Your task to perform on an android device: change your default location settings in chrome Image 0: 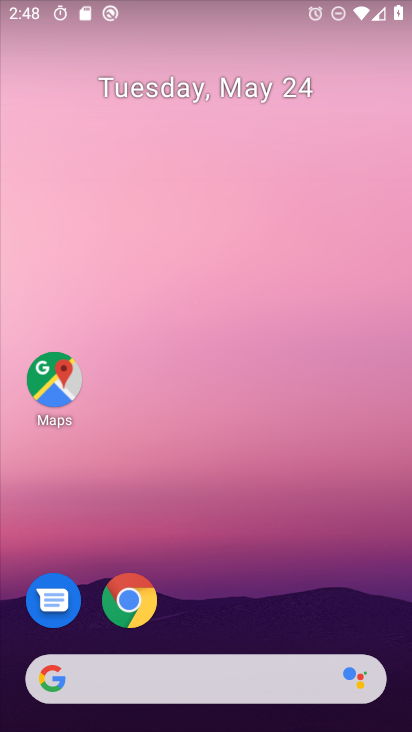
Step 0: click (129, 601)
Your task to perform on an android device: change your default location settings in chrome Image 1: 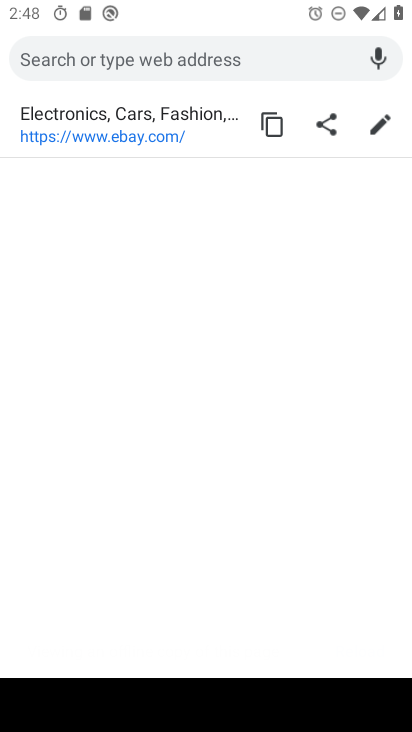
Step 1: press back button
Your task to perform on an android device: change your default location settings in chrome Image 2: 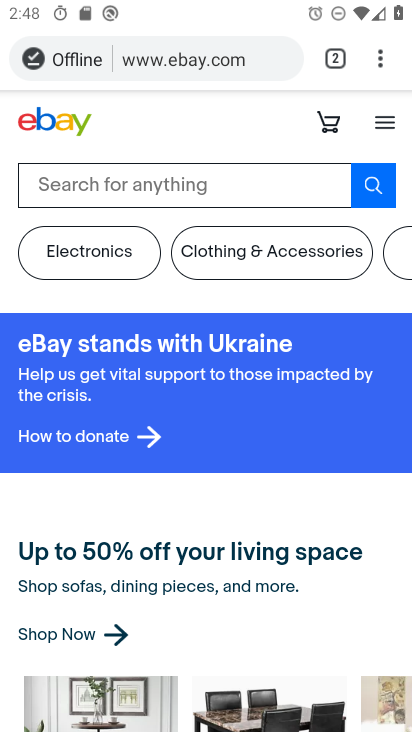
Step 2: click (386, 49)
Your task to perform on an android device: change your default location settings in chrome Image 3: 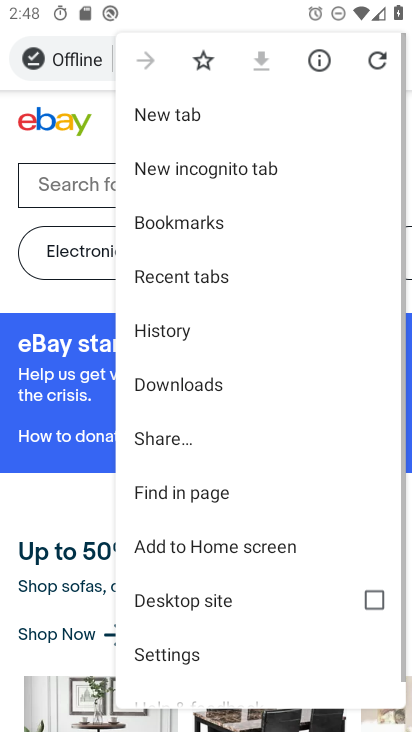
Step 3: drag from (248, 603) to (284, 177)
Your task to perform on an android device: change your default location settings in chrome Image 4: 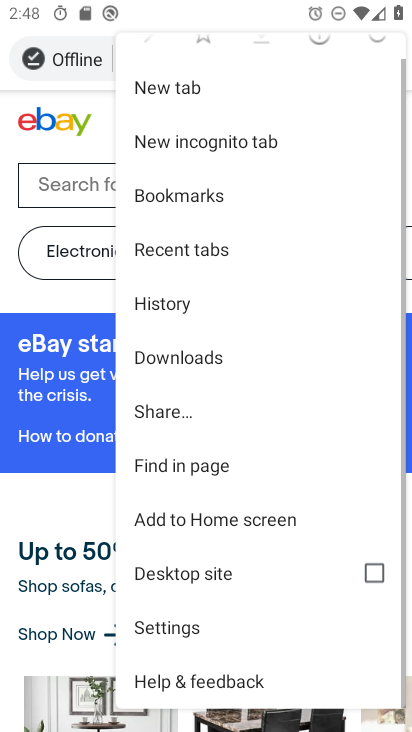
Step 4: click (207, 638)
Your task to perform on an android device: change your default location settings in chrome Image 5: 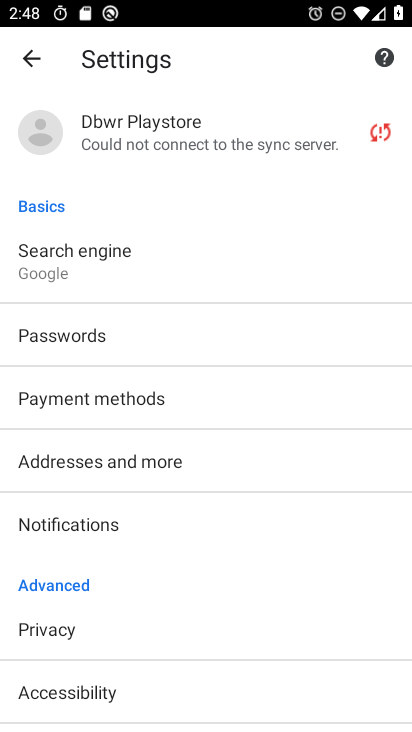
Step 5: drag from (175, 693) to (256, 296)
Your task to perform on an android device: change your default location settings in chrome Image 6: 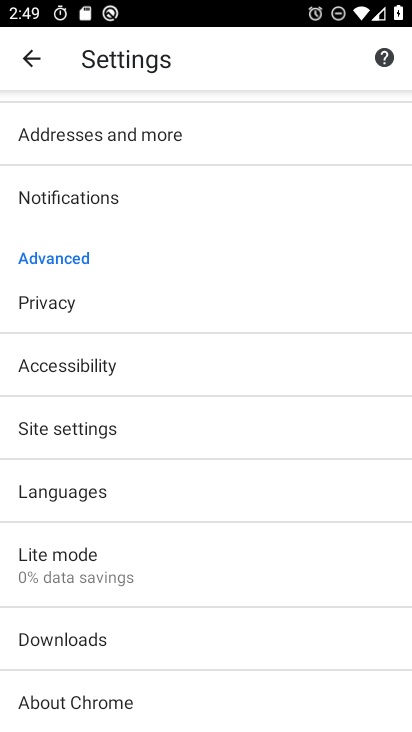
Step 6: drag from (144, 276) to (177, 594)
Your task to perform on an android device: change your default location settings in chrome Image 7: 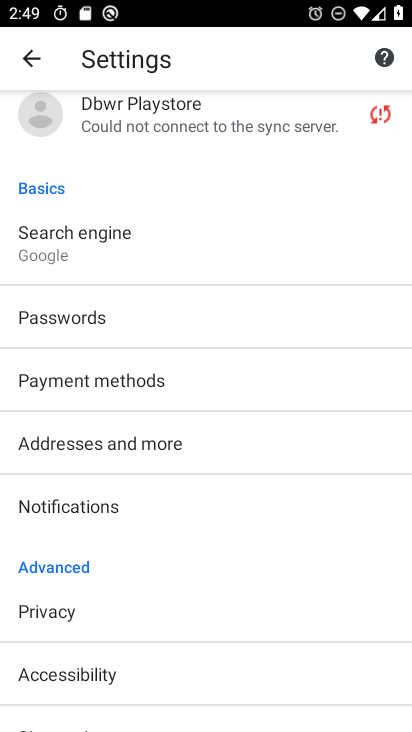
Step 7: drag from (128, 609) to (205, 286)
Your task to perform on an android device: change your default location settings in chrome Image 8: 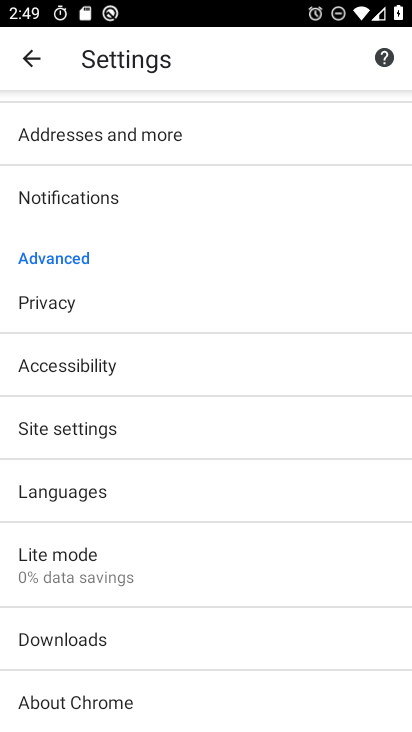
Step 8: click (95, 426)
Your task to perform on an android device: change your default location settings in chrome Image 9: 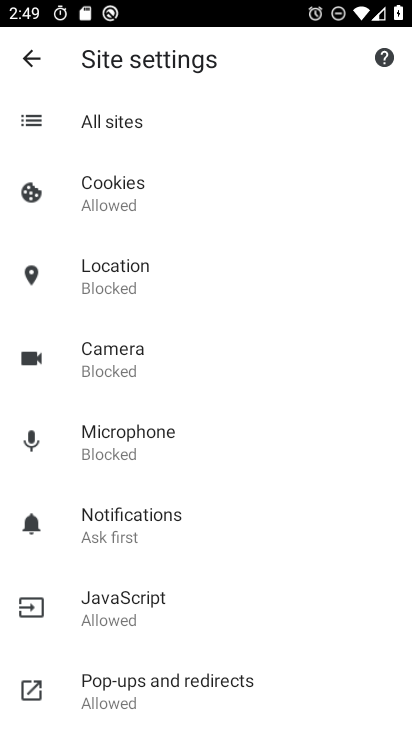
Step 9: click (134, 286)
Your task to perform on an android device: change your default location settings in chrome Image 10: 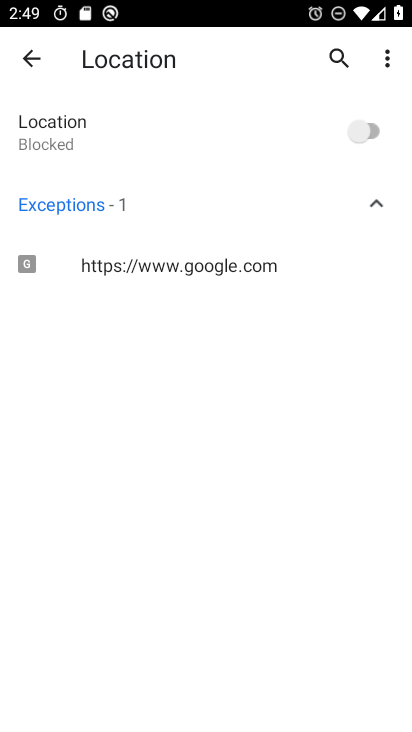
Step 10: click (355, 127)
Your task to perform on an android device: change your default location settings in chrome Image 11: 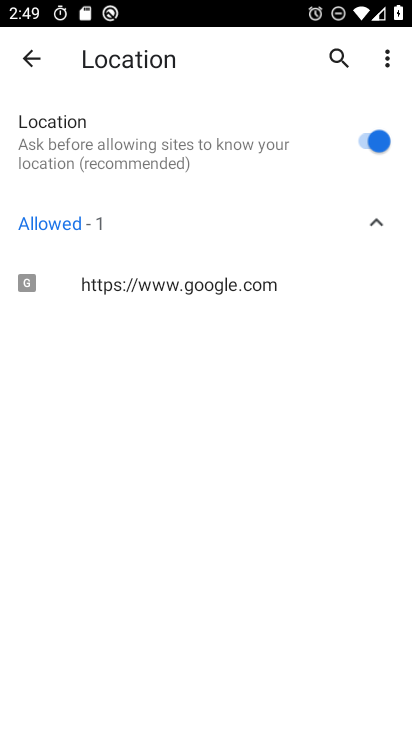
Step 11: task complete